Your task to perform on an android device: check storage Image 0: 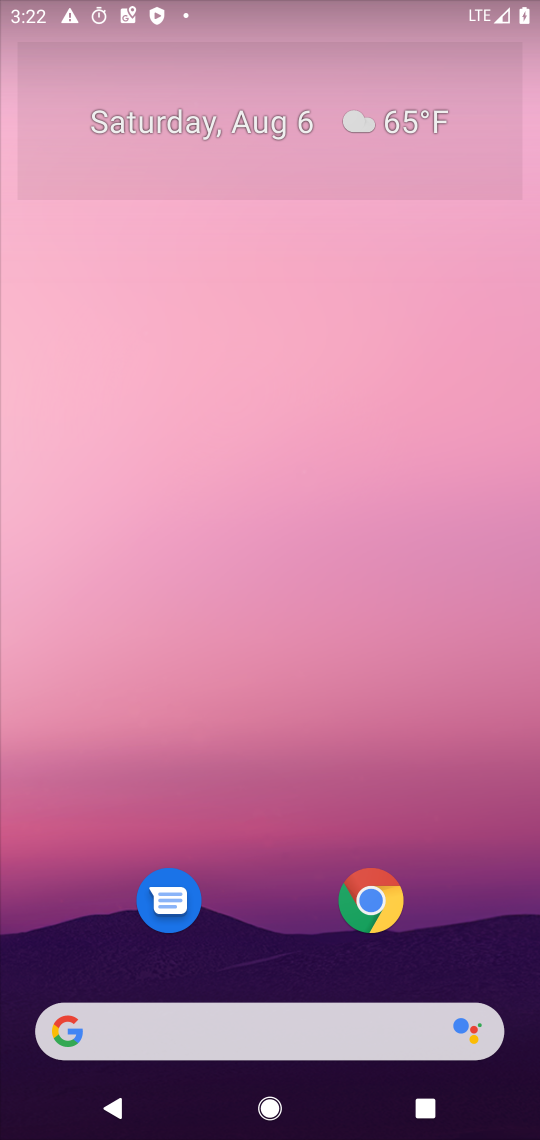
Step 0: press home button
Your task to perform on an android device: check storage Image 1: 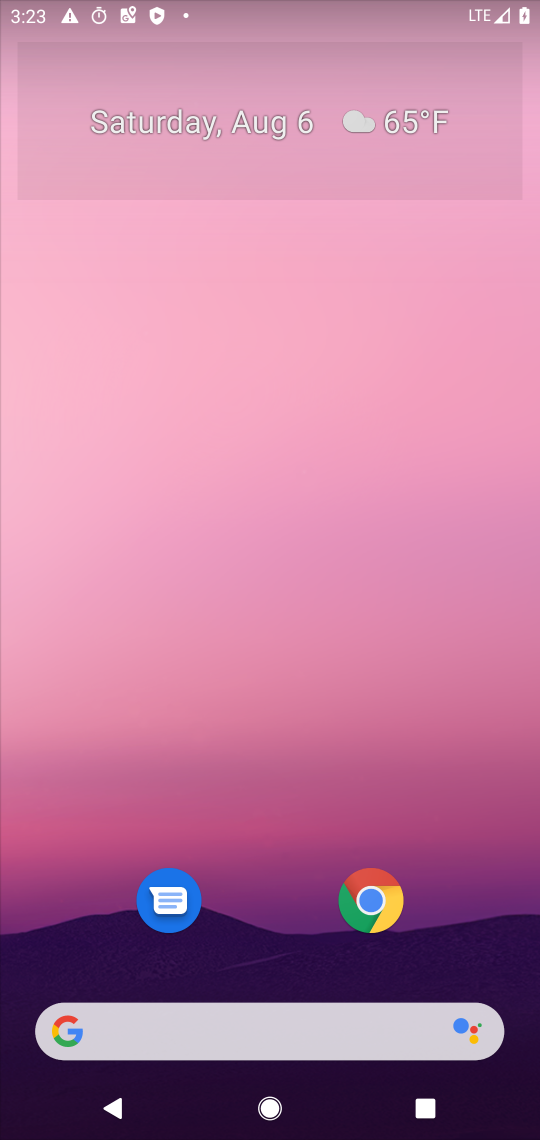
Step 1: drag from (254, 866) to (286, 47)
Your task to perform on an android device: check storage Image 2: 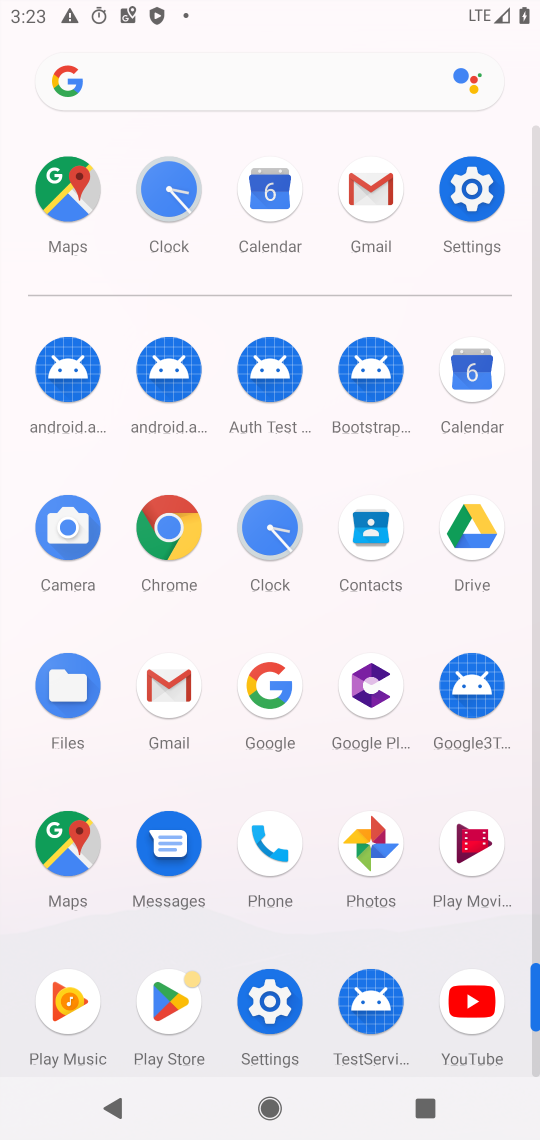
Step 2: click (445, 167)
Your task to perform on an android device: check storage Image 3: 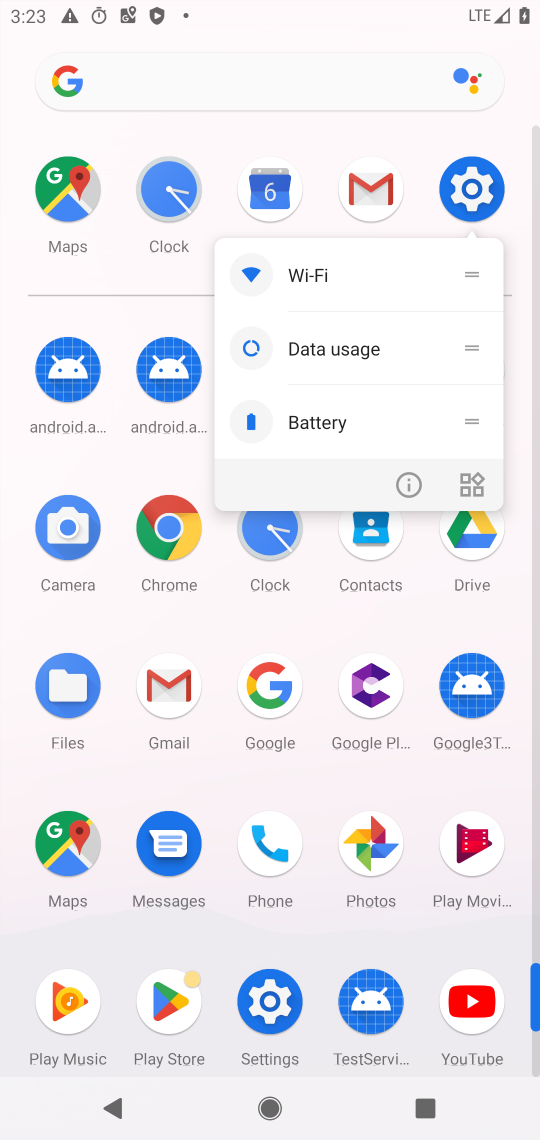
Step 3: click (469, 192)
Your task to perform on an android device: check storage Image 4: 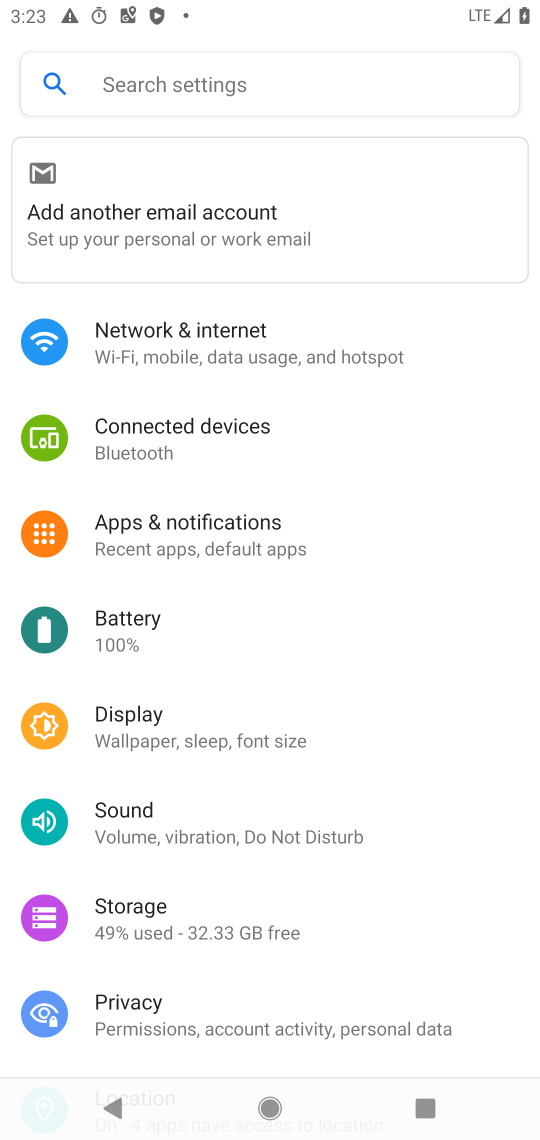
Step 4: click (176, 923)
Your task to perform on an android device: check storage Image 5: 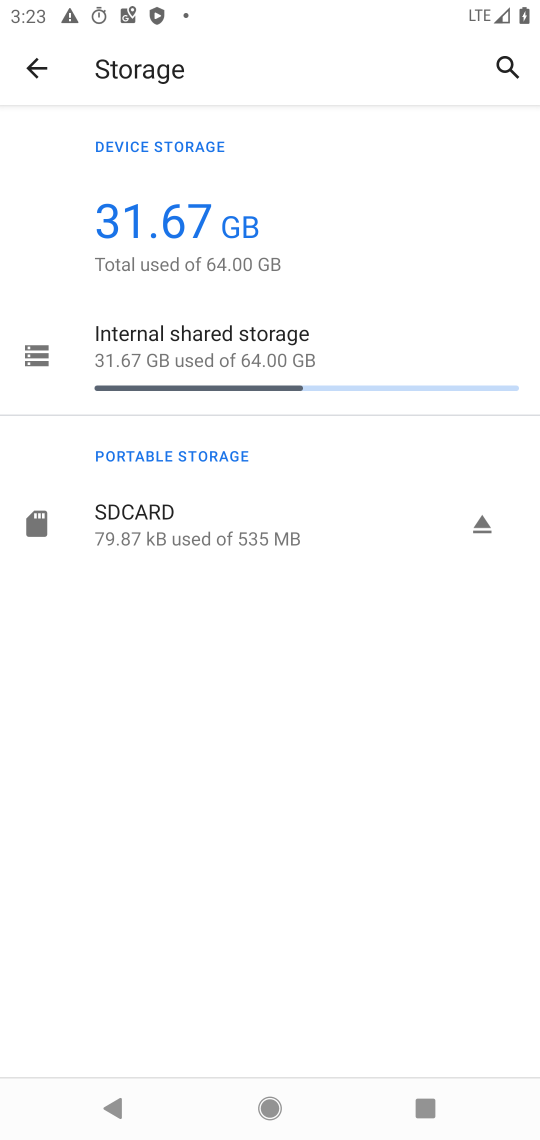
Step 5: task complete